Your task to perform on an android device: See recent photos Image 0: 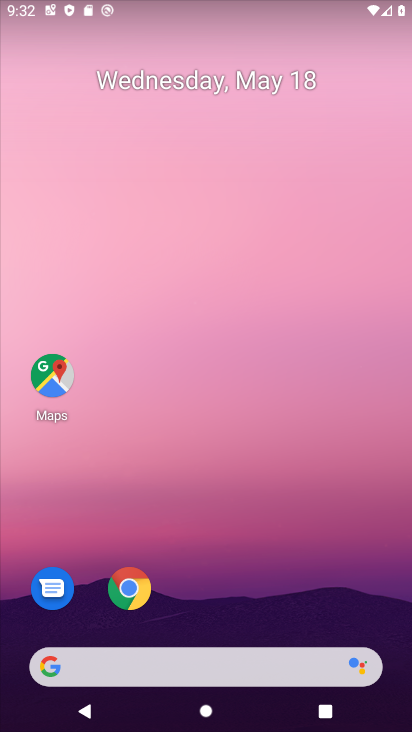
Step 0: drag from (276, 691) to (229, 171)
Your task to perform on an android device: See recent photos Image 1: 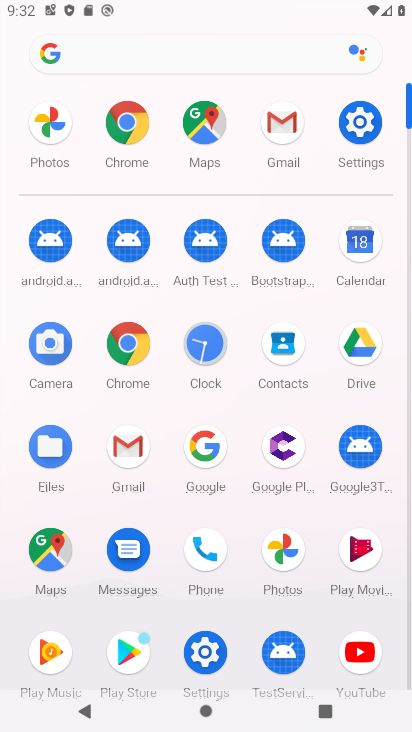
Step 1: click (293, 555)
Your task to perform on an android device: See recent photos Image 2: 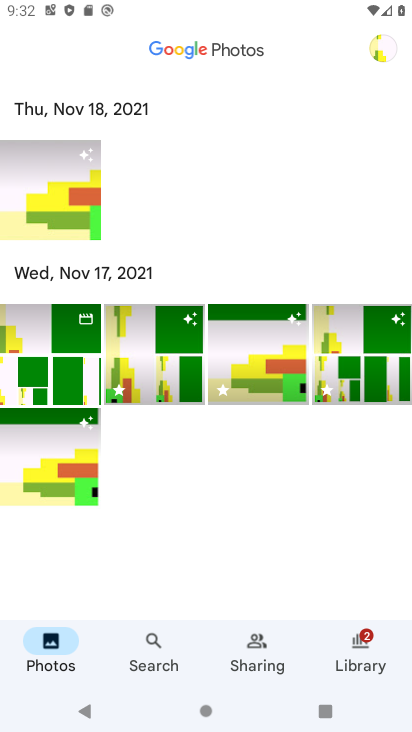
Step 2: task complete